Your task to perform on an android device: Go to privacy settings Image 0: 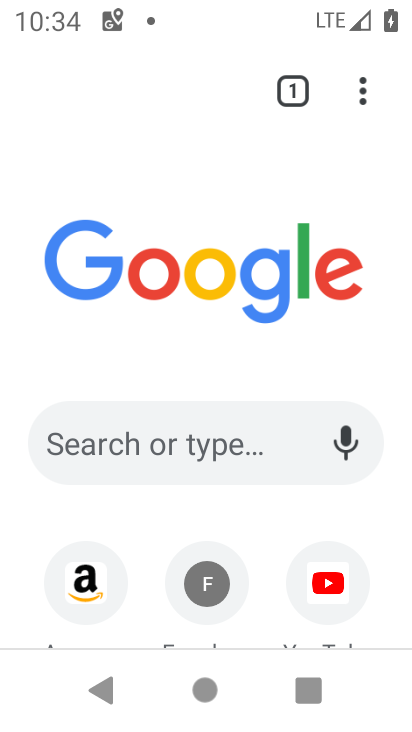
Step 0: press home button
Your task to perform on an android device: Go to privacy settings Image 1: 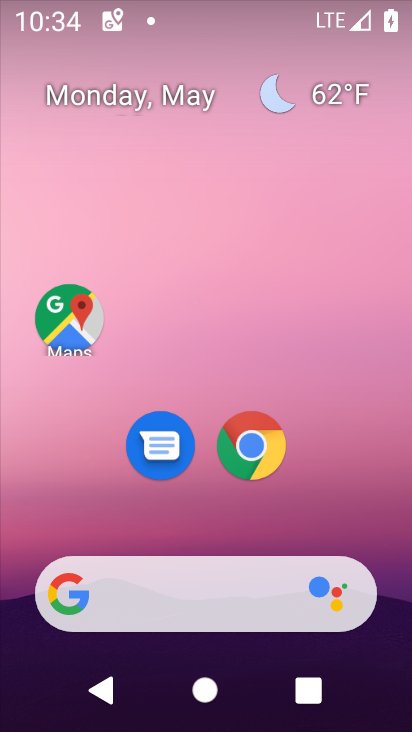
Step 1: drag from (388, 640) to (270, 50)
Your task to perform on an android device: Go to privacy settings Image 2: 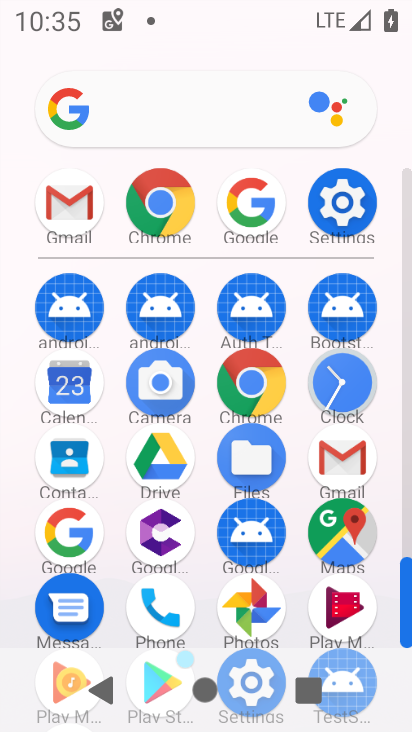
Step 2: click (360, 209)
Your task to perform on an android device: Go to privacy settings Image 3: 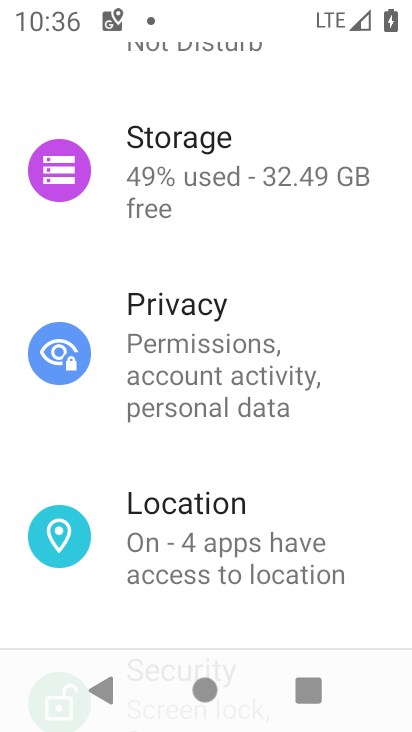
Step 3: click (162, 414)
Your task to perform on an android device: Go to privacy settings Image 4: 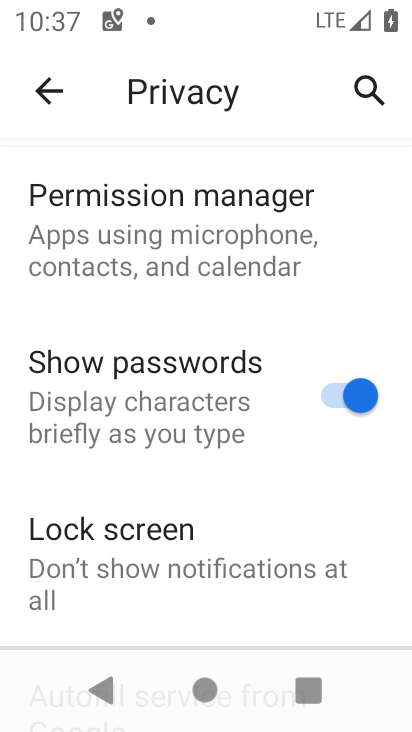
Step 4: task complete